Your task to perform on an android device: Search for pizza restaurants on Maps Image 0: 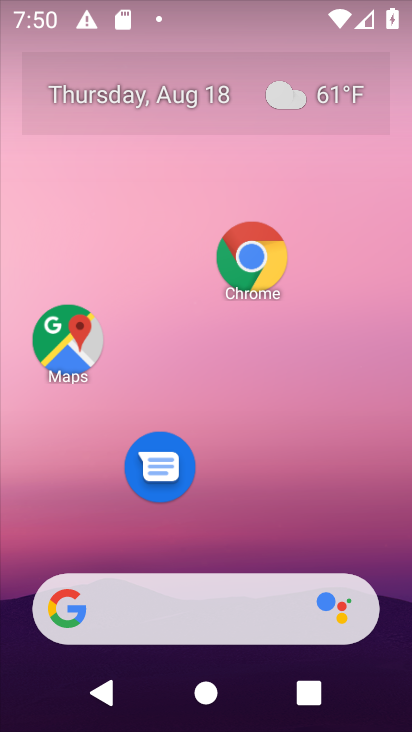
Step 0: drag from (310, 521) to (299, 119)
Your task to perform on an android device: Search for pizza restaurants on Maps Image 1: 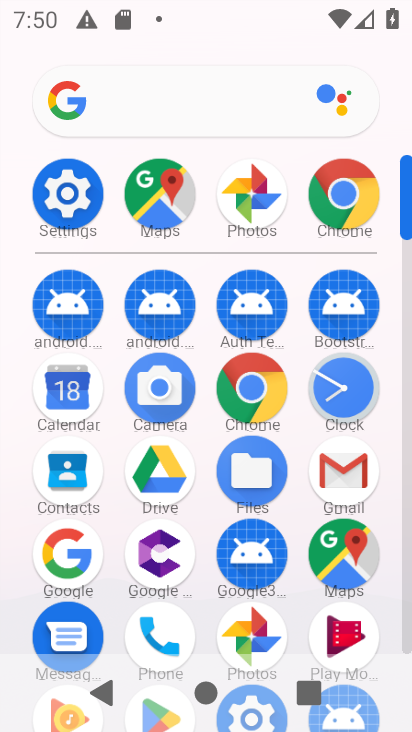
Step 1: click (149, 190)
Your task to perform on an android device: Search for pizza restaurants on Maps Image 2: 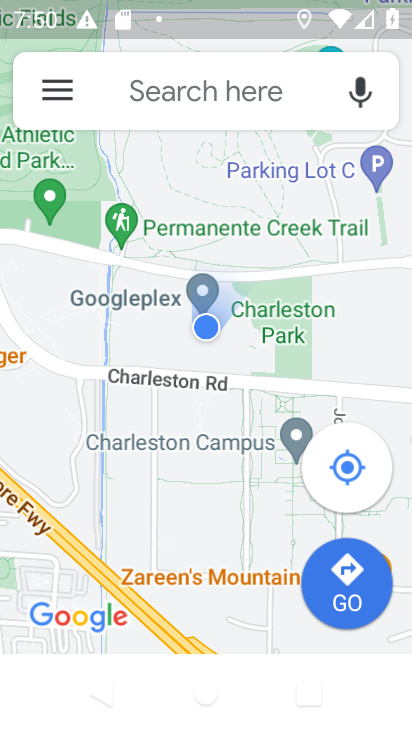
Step 2: click (246, 113)
Your task to perform on an android device: Search for pizza restaurants on Maps Image 3: 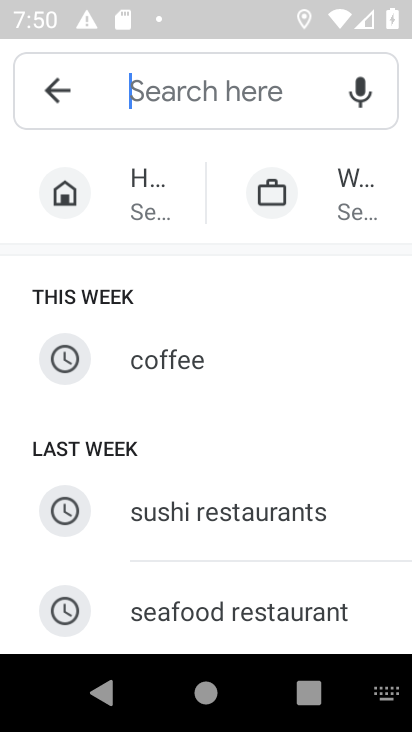
Step 3: type "Search for pizza restaurants "
Your task to perform on an android device: Search for pizza restaurants on Maps Image 4: 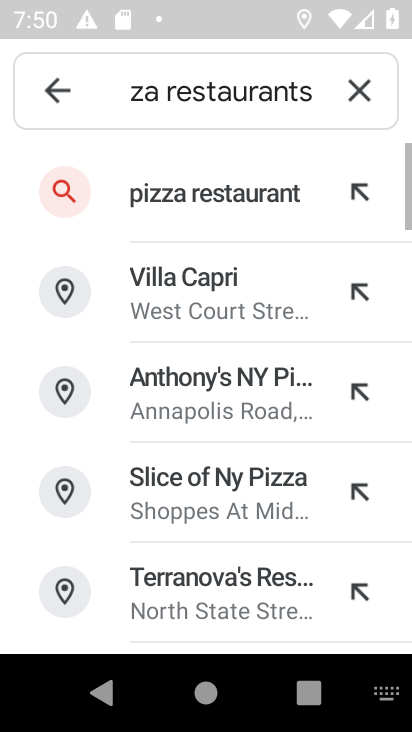
Step 4: press enter
Your task to perform on an android device: Search for pizza restaurants on Maps Image 5: 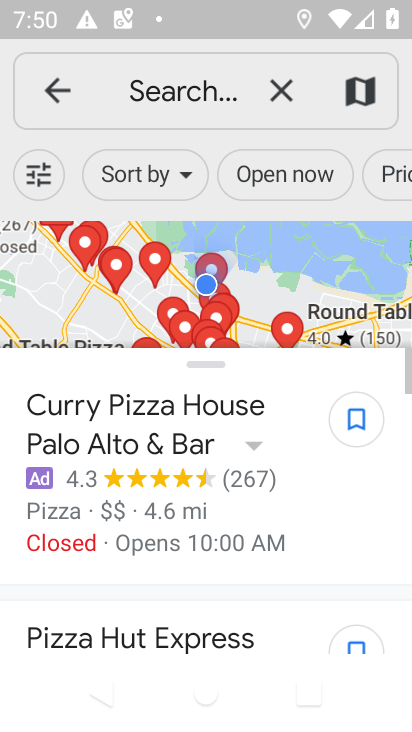
Step 5: task complete